Your task to perform on an android device: turn off improve location accuracy Image 0: 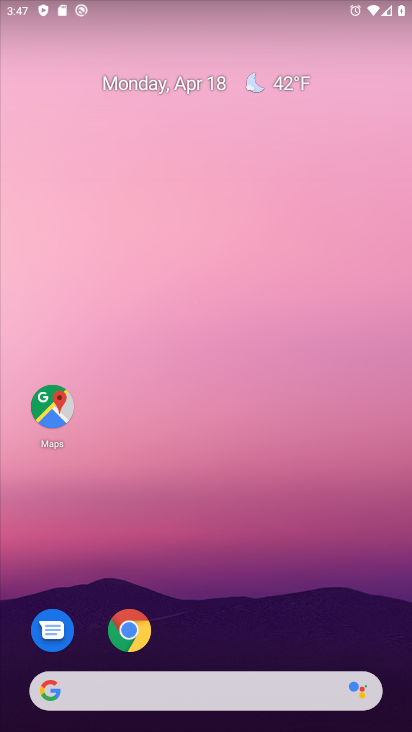
Step 0: drag from (190, 548) to (243, 195)
Your task to perform on an android device: turn off improve location accuracy Image 1: 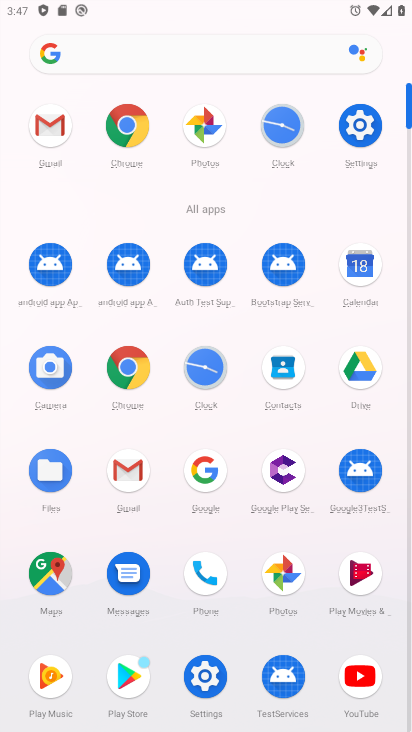
Step 1: click (205, 669)
Your task to perform on an android device: turn off improve location accuracy Image 2: 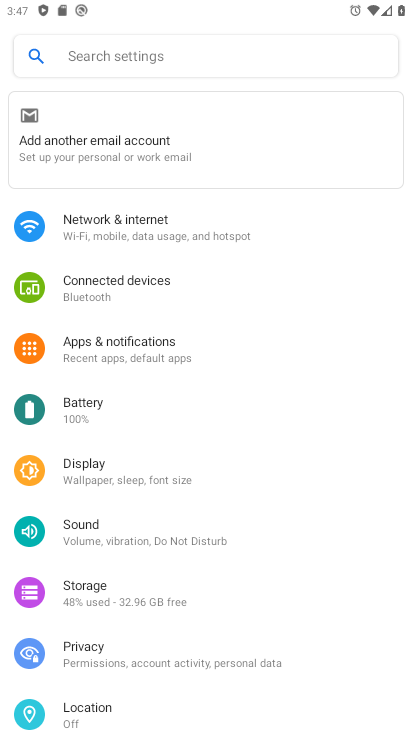
Step 2: drag from (159, 614) to (247, 285)
Your task to perform on an android device: turn off improve location accuracy Image 3: 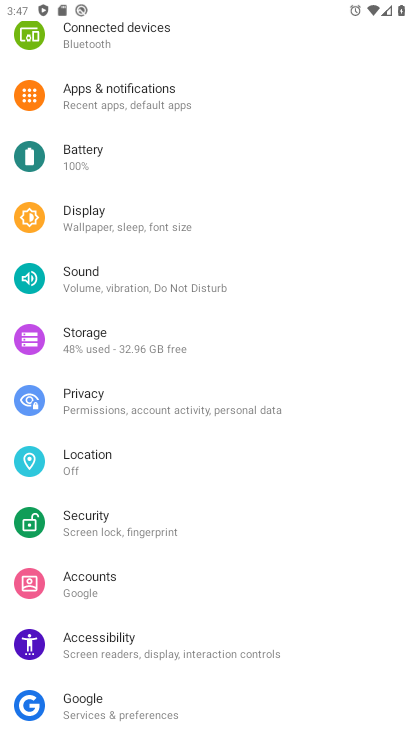
Step 3: click (130, 455)
Your task to perform on an android device: turn off improve location accuracy Image 4: 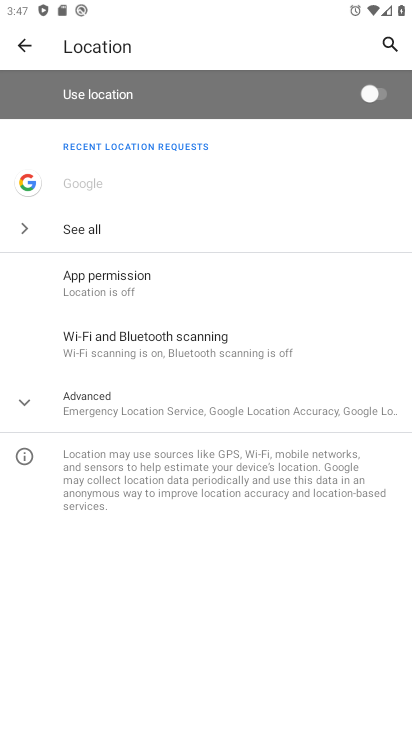
Step 4: click (140, 402)
Your task to perform on an android device: turn off improve location accuracy Image 5: 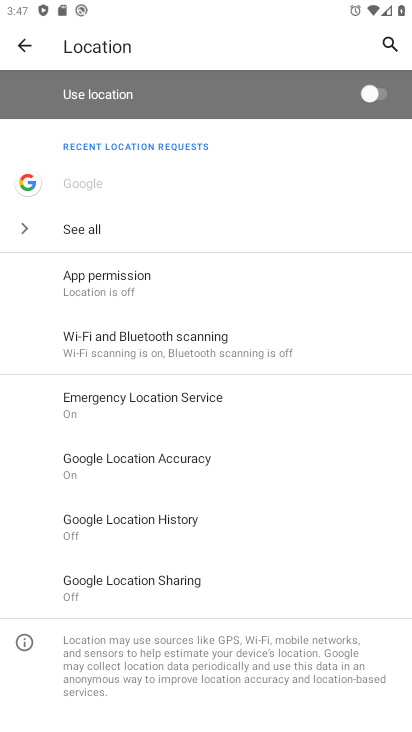
Step 5: click (215, 474)
Your task to perform on an android device: turn off improve location accuracy Image 6: 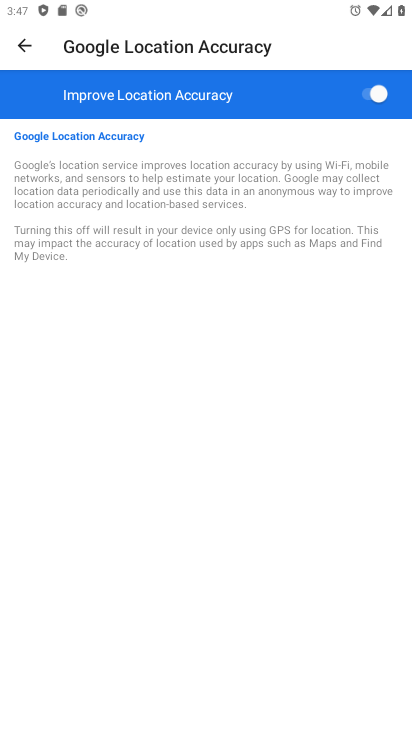
Step 6: click (360, 93)
Your task to perform on an android device: turn off improve location accuracy Image 7: 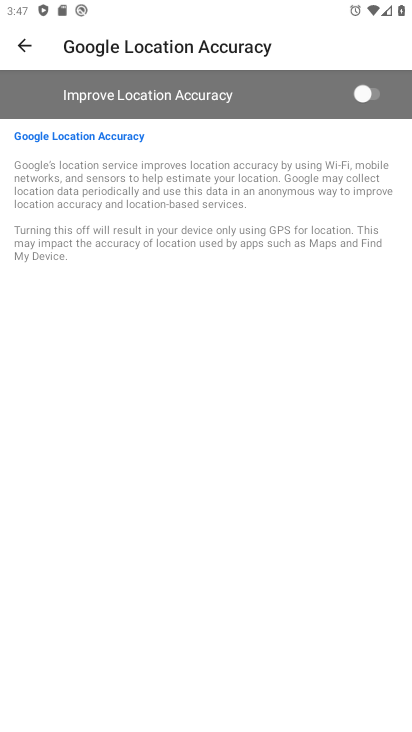
Step 7: task complete